Your task to perform on an android device: turn notification dots off Image 0: 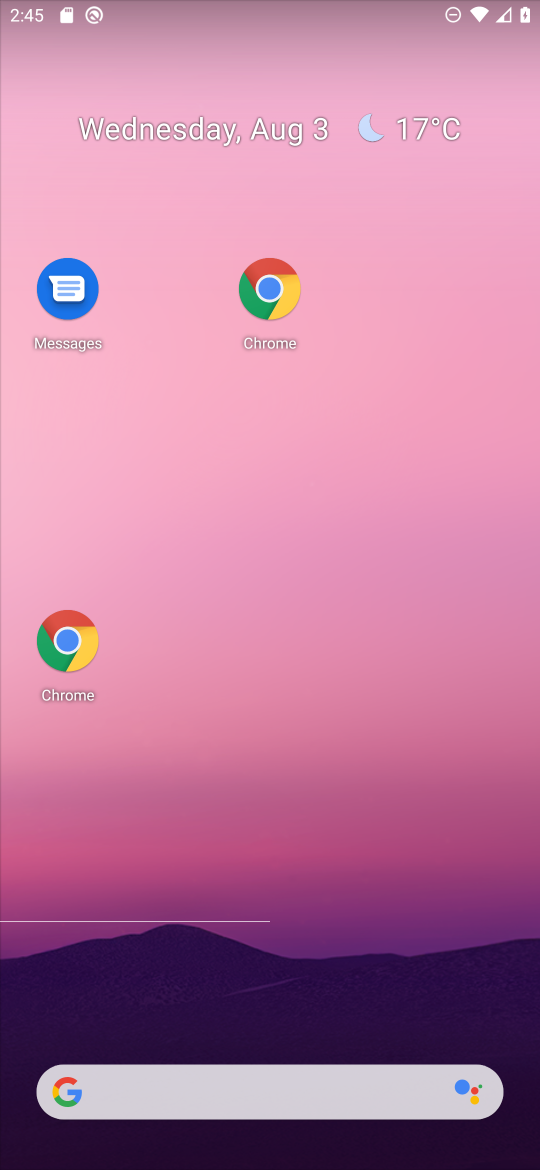
Step 0: drag from (396, 991) to (390, 254)
Your task to perform on an android device: turn notification dots off Image 1: 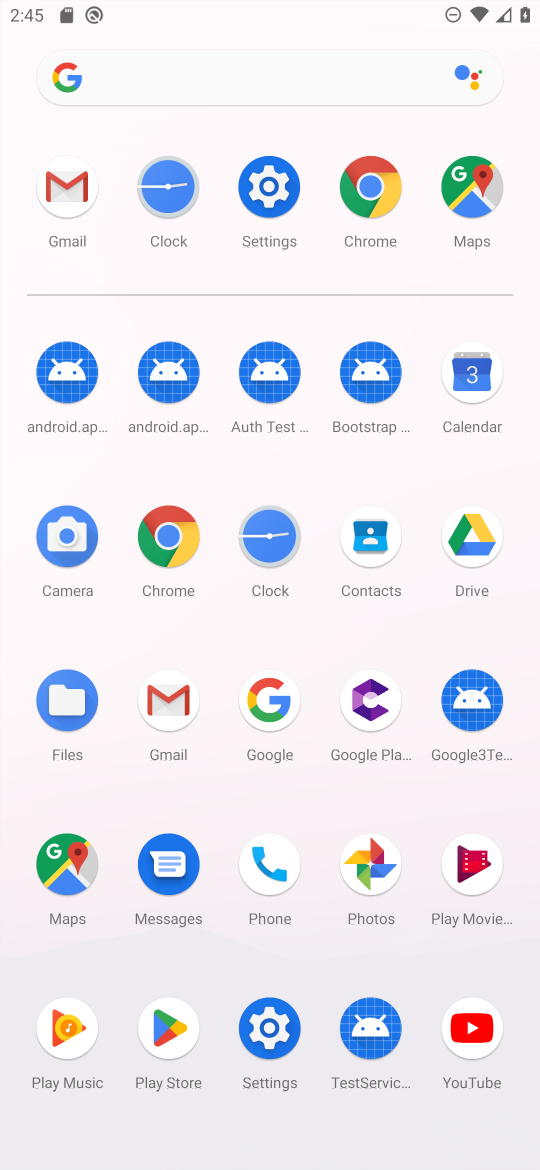
Step 1: click (235, 220)
Your task to perform on an android device: turn notification dots off Image 2: 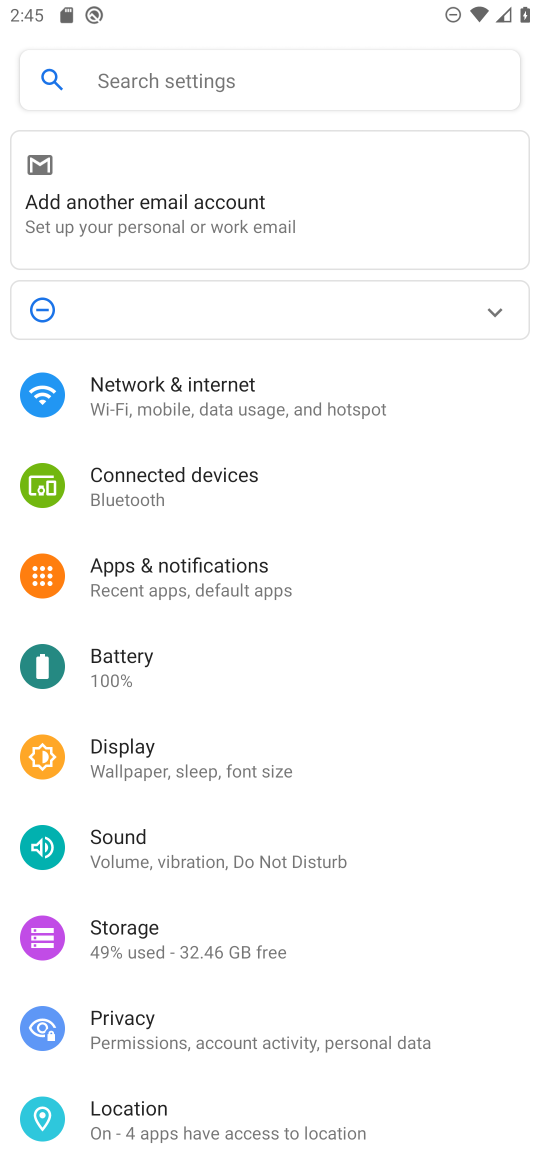
Step 2: click (203, 557)
Your task to perform on an android device: turn notification dots off Image 3: 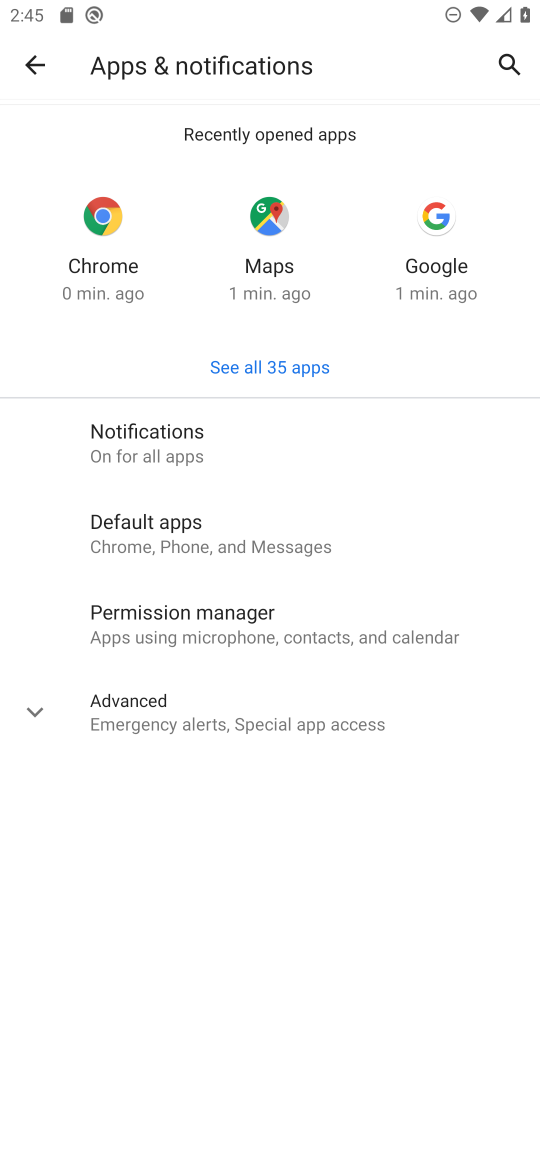
Step 3: task complete